Your task to perform on an android device: Open Google Image 0: 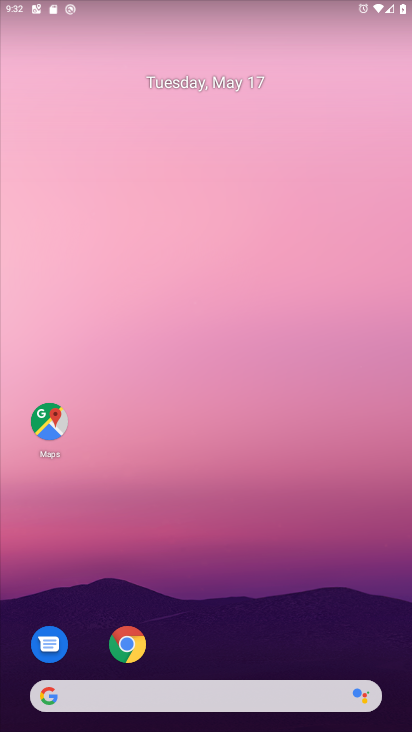
Step 0: press home button
Your task to perform on an android device: Open Google Image 1: 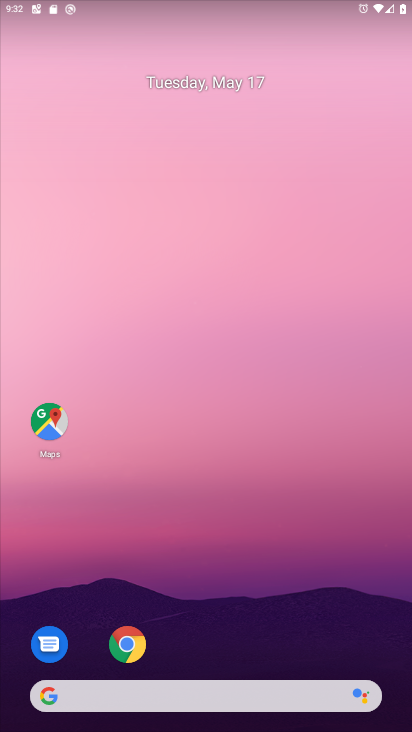
Step 1: drag from (195, 657) to (208, 72)
Your task to perform on an android device: Open Google Image 2: 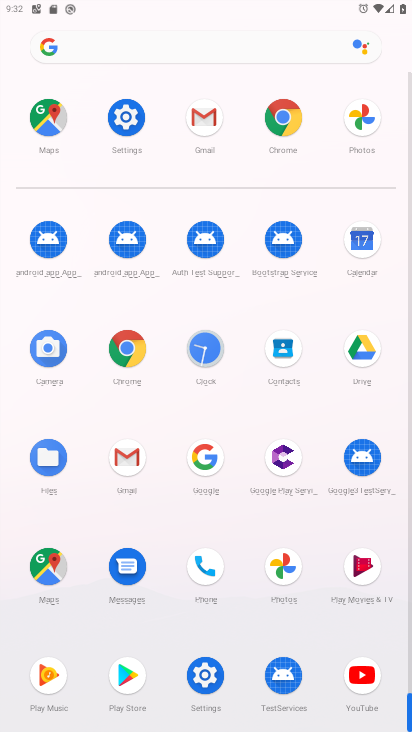
Step 2: click (205, 448)
Your task to perform on an android device: Open Google Image 3: 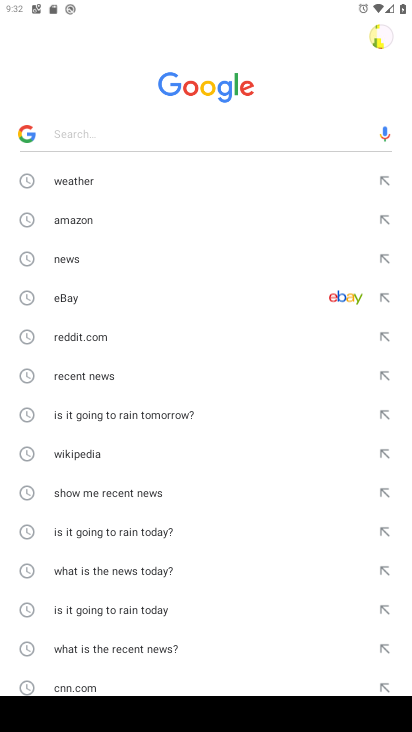
Step 3: press back button
Your task to perform on an android device: Open Google Image 4: 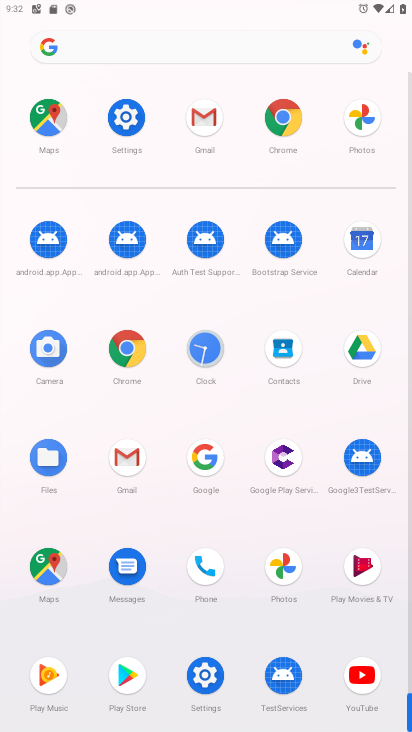
Step 4: click (202, 445)
Your task to perform on an android device: Open Google Image 5: 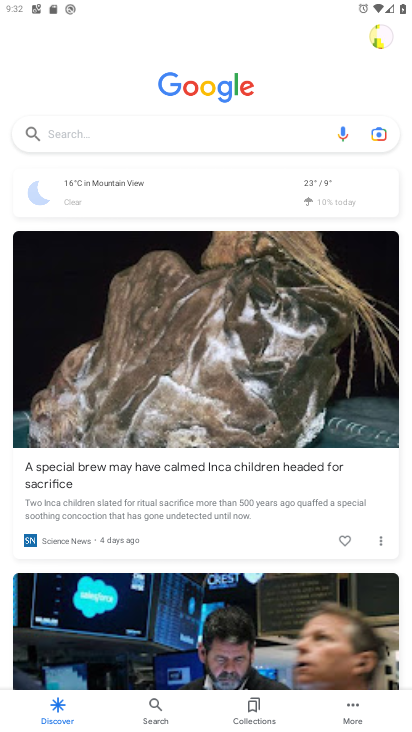
Step 5: click (349, 705)
Your task to perform on an android device: Open Google Image 6: 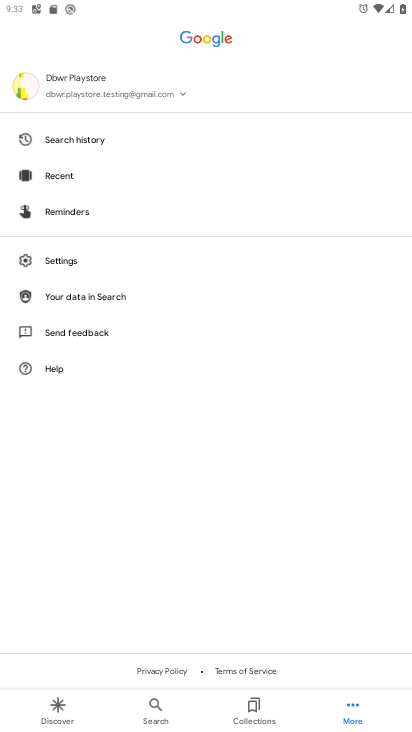
Step 6: task complete